Your task to perform on an android device: Open Google Chrome Image 0: 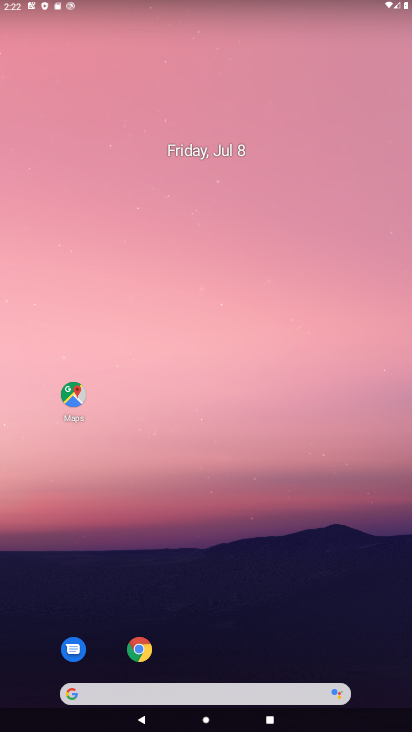
Step 0: click (138, 649)
Your task to perform on an android device: Open Google Chrome Image 1: 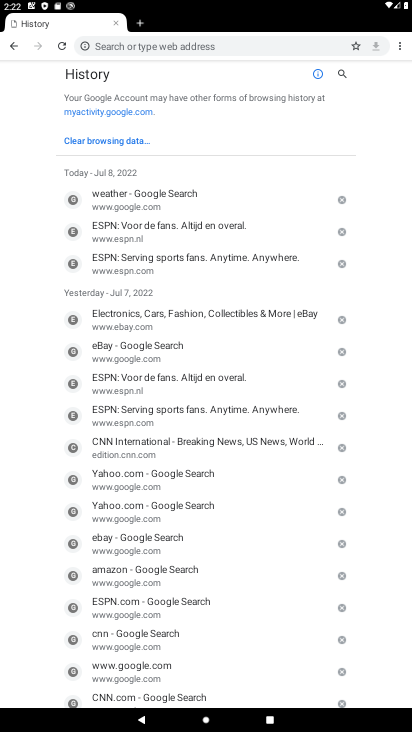
Step 1: task complete